Your task to perform on an android device: Check the weather Image 0: 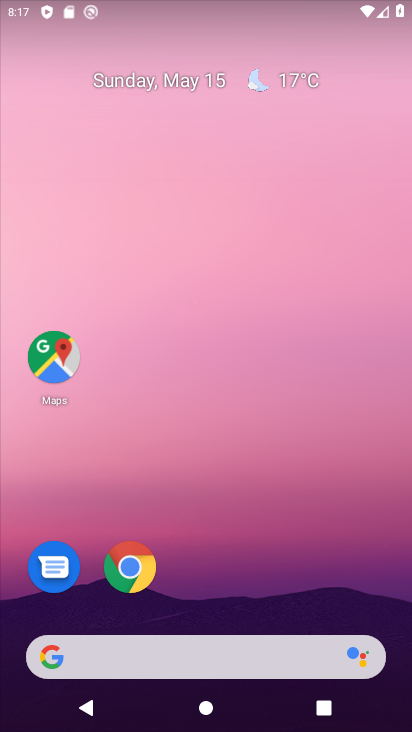
Step 0: click (286, 80)
Your task to perform on an android device: Check the weather Image 1: 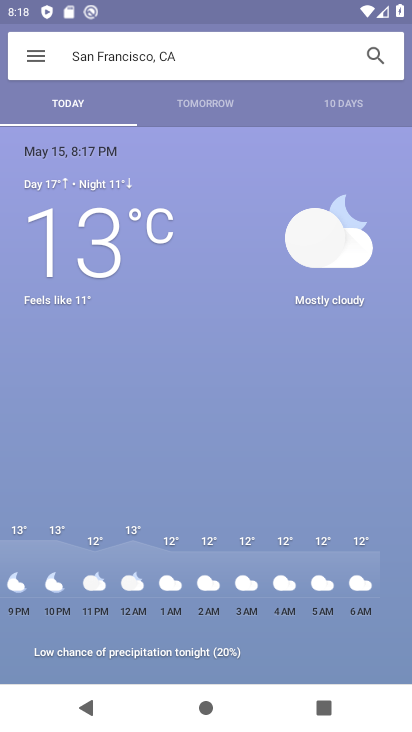
Step 1: task complete